Your task to perform on an android device: Go to Yahoo.com Image 0: 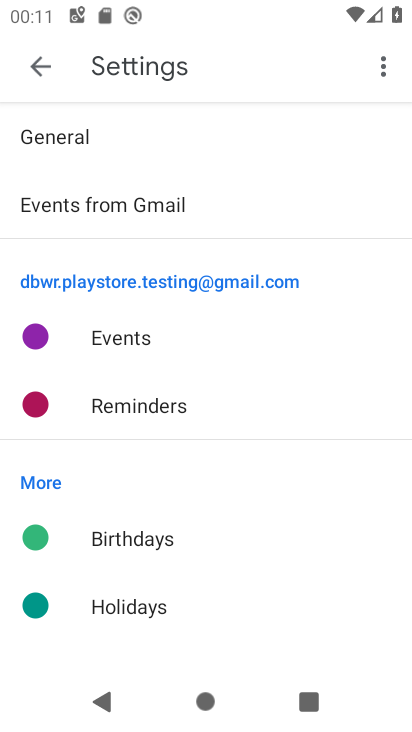
Step 0: press home button
Your task to perform on an android device: Go to Yahoo.com Image 1: 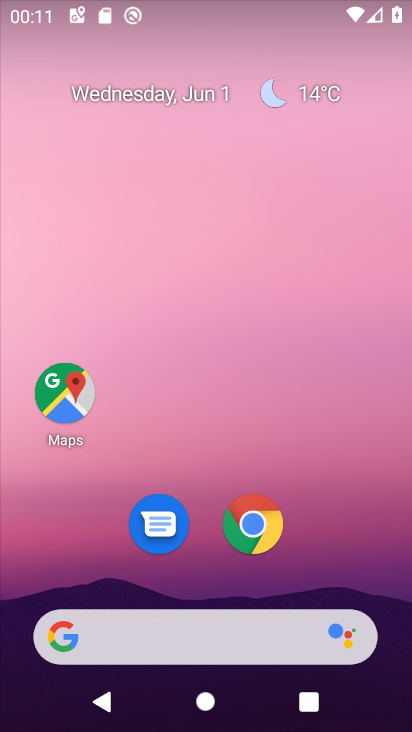
Step 1: click (221, 636)
Your task to perform on an android device: Go to Yahoo.com Image 2: 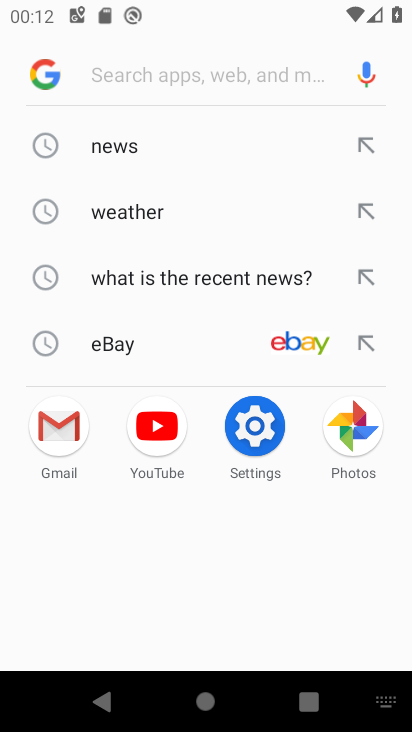
Step 2: type "yahoo.com"
Your task to perform on an android device: Go to Yahoo.com Image 3: 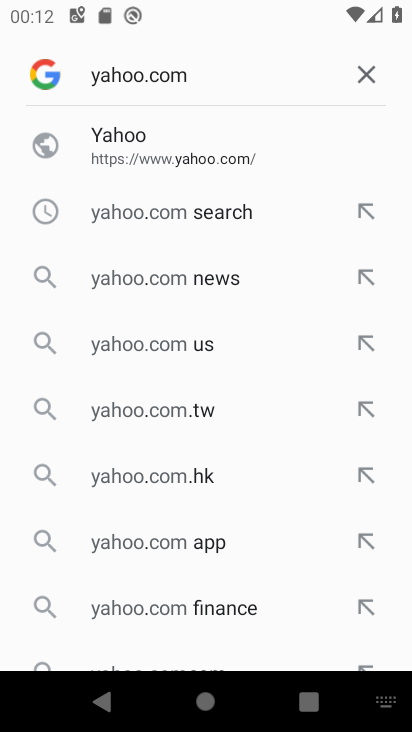
Step 3: click (129, 147)
Your task to perform on an android device: Go to Yahoo.com Image 4: 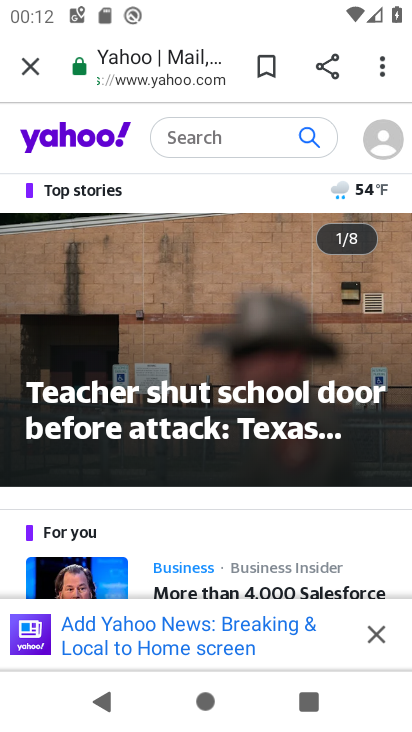
Step 4: task complete